Your task to perform on an android device: turn off airplane mode Image 0: 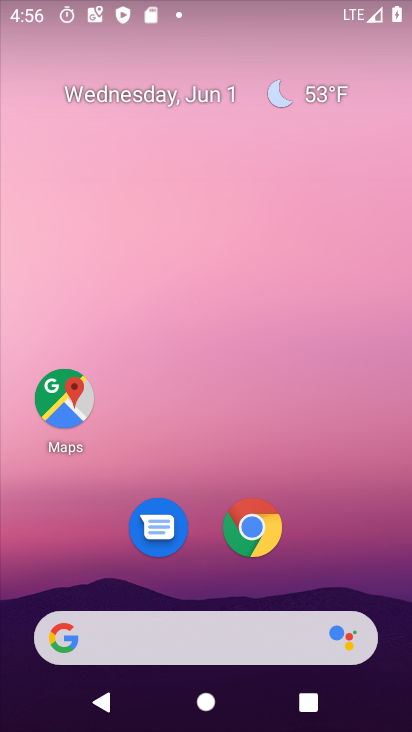
Step 0: drag from (207, 13) to (156, 383)
Your task to perform on an android device: turn off airplane mode Image 1: 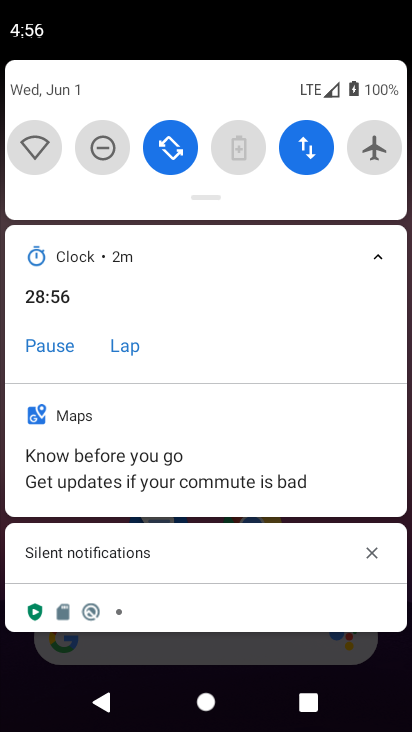
Step 1: task complete